Your task to perform on an android device: Go to notification settings Image 0: 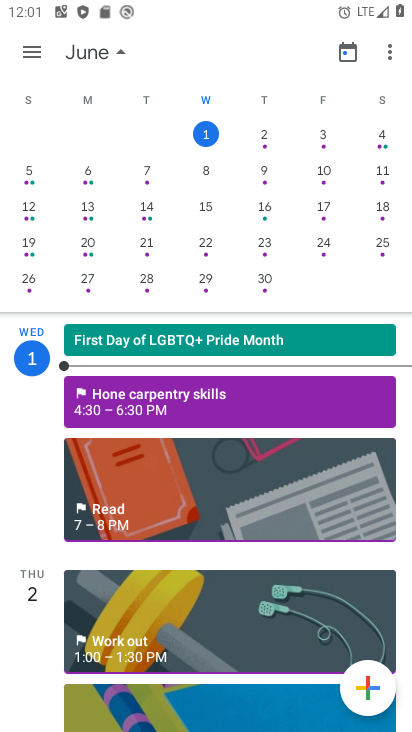
Step 0: press home button
Your task to perform on an android device: Go to notification settings Image 1: 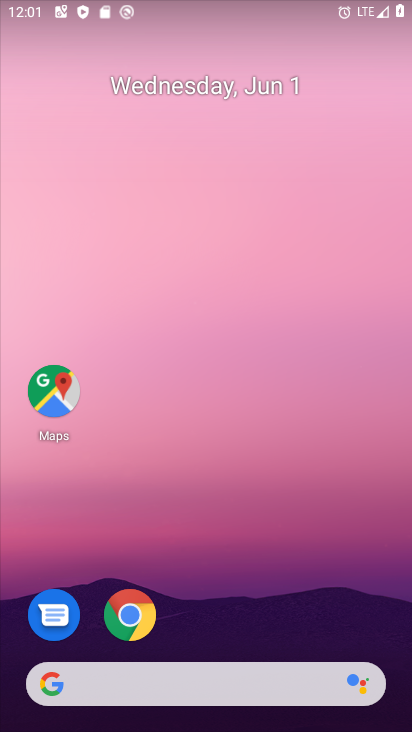
Step 1: drag from (292, 582) to (206, 31)
Your task to perform on an android device: Go to notification settings Image 2: 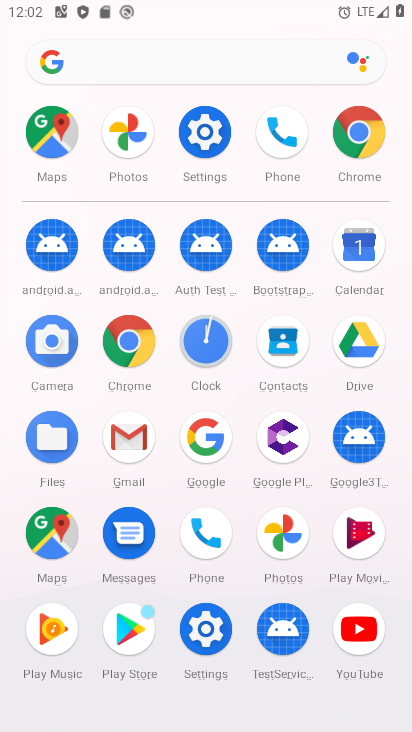
Step 2: click (206, 136)
Your task to perform on an android device: Go to notification settings Image 3: 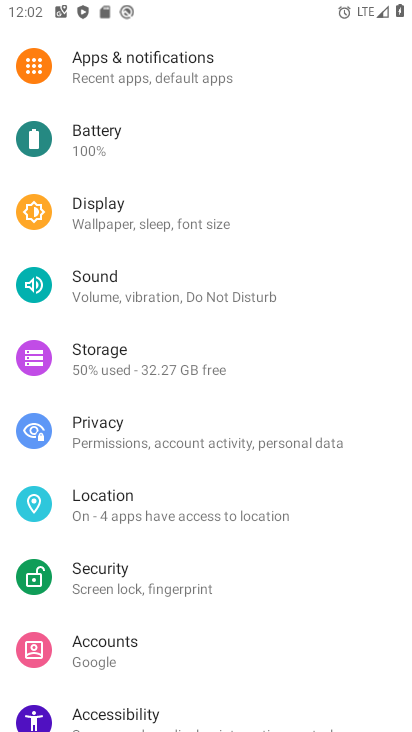
Step 3: drag from (162, 192) to (203, 495)
Your task to perform on an android device: Go to notification settings Image 4: 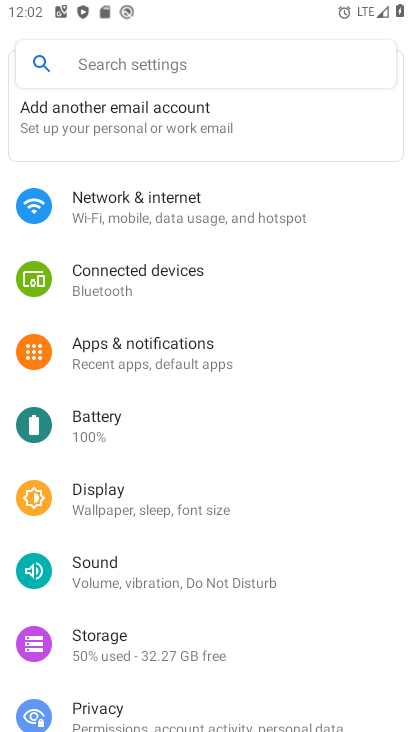
Step 4: click (169, 347)
Your task to perform on an android device: Go to notification settings Image 5: 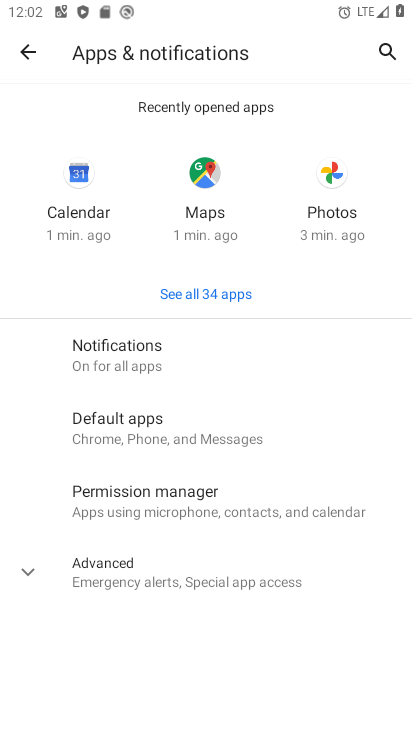
Step 5: click (166, 348)
Your task to perform on an android device: Go to notification settings Image 6: 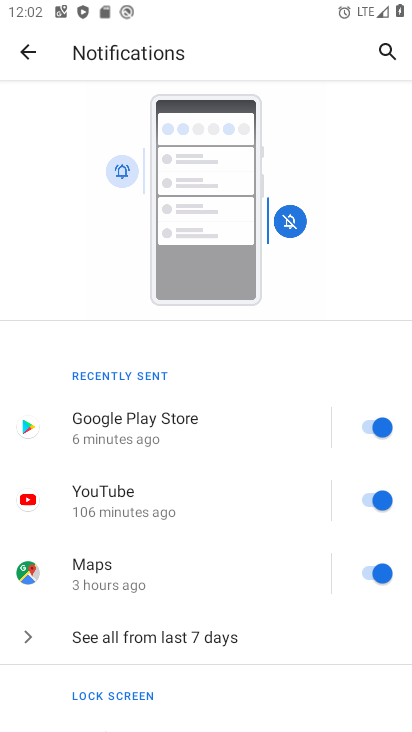
Step 6: task complete